Your task to perform on an android device: Go to Android settings Image 0: 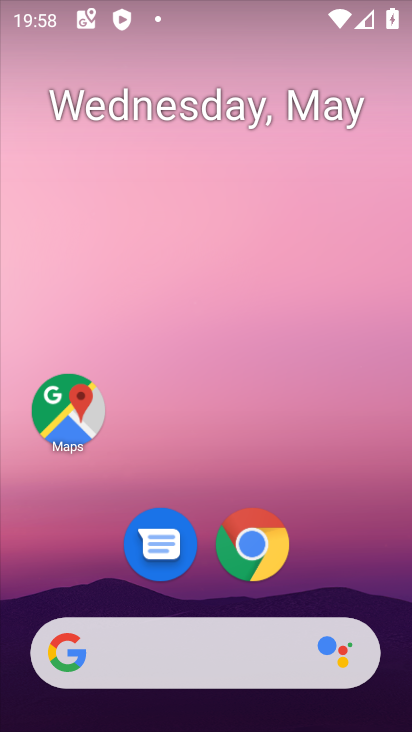
Step 0: drag from (213, 594) to (234, 205)
Your task to perform on an android device: Go to Android settings Image 1: 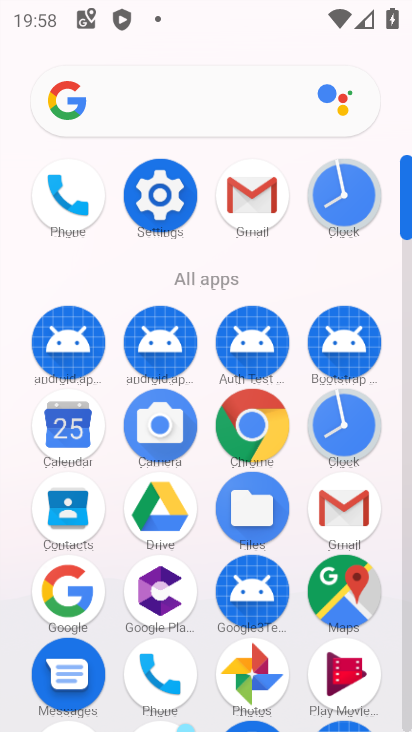
Step 1: click (151, 170)
Your task to perform on an android device: Go to Android settings Image 2: 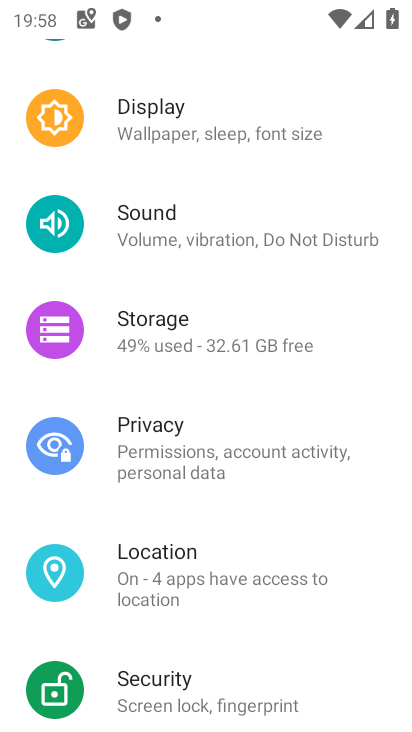
Step 2: task complete